Your task to perform on an android device: Open the calendar app, open the side menu, and click the "Day" option Image 0: 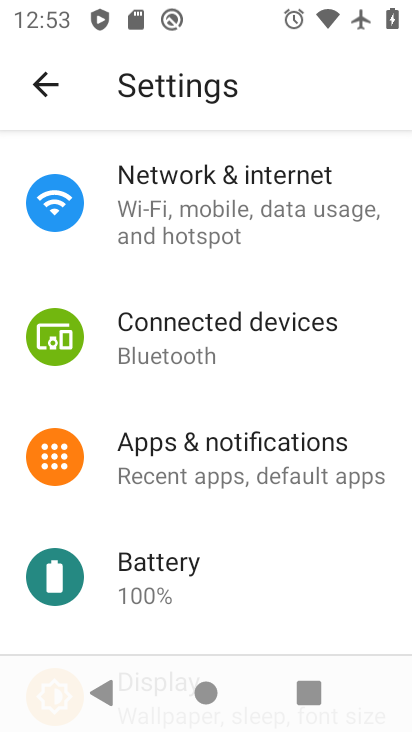
Step 0: press home button
Your task to perform on an android device: Open the calendar app, open the side menu, and click the "Day" option Image 1: 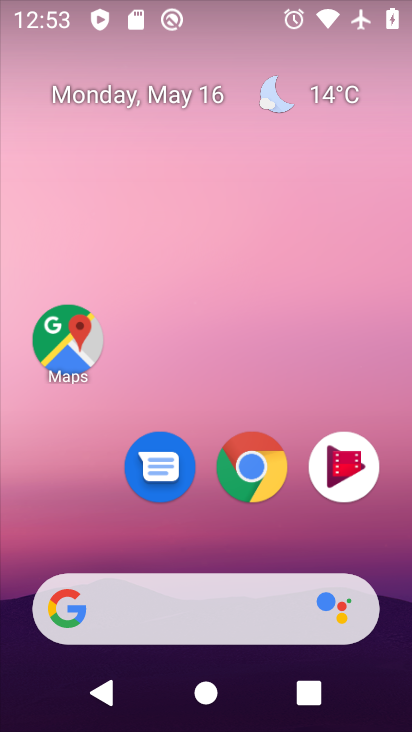
Step 1: drag from (256, 554) to (286, 195)
Your task to perform on an android device: Open the calendar app, open the side menu, and click the "Day" option Image 2: 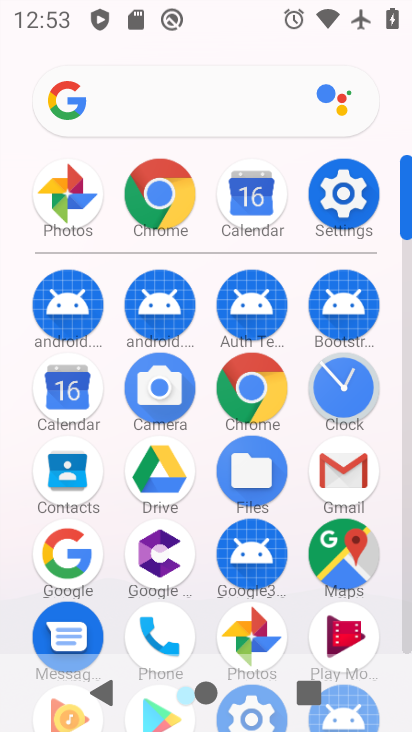
Step 2: click (61, 384)
Your task to perform on an android device: Open the calendar app, open the side menu, and click the "Day" option Image 3: 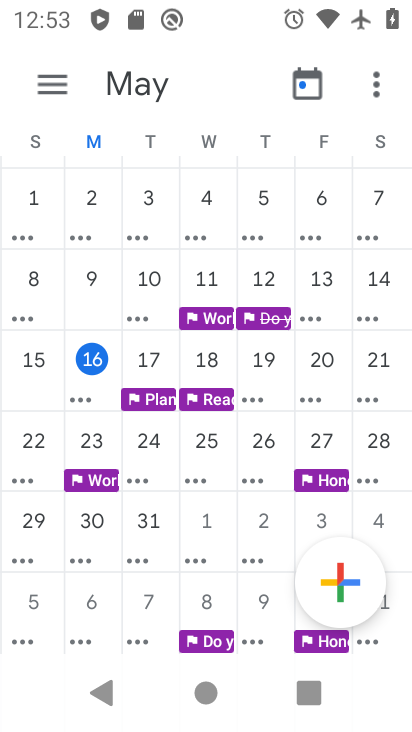
Step 3: click (56, 78)
Your task to perform on an android device: Open the calendar app, open the side menu, and click the "Day" option Image 4: 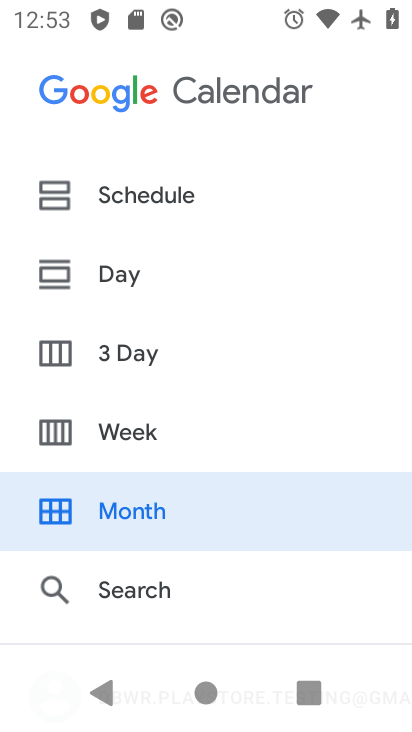
Step 4: click (120, 263)
Your task to perform on an android device: Open the calendar app, open the side menu, and click the "Day" option Image 5: 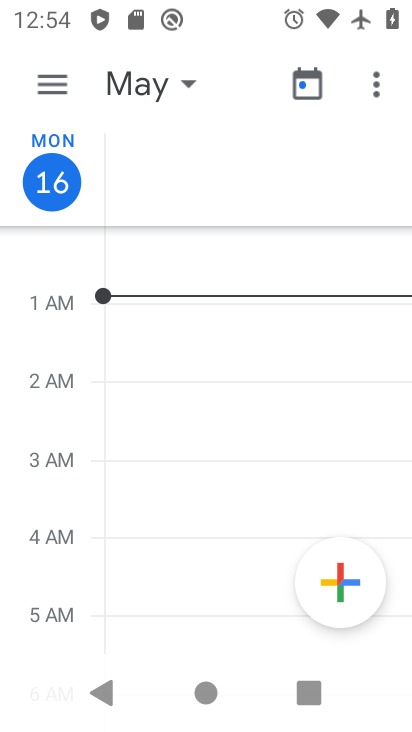
Step 5: click (40, 78)
Your task to perform on an android device: Open the calendar app, open the side menu, and click the "Day" option Image 6: 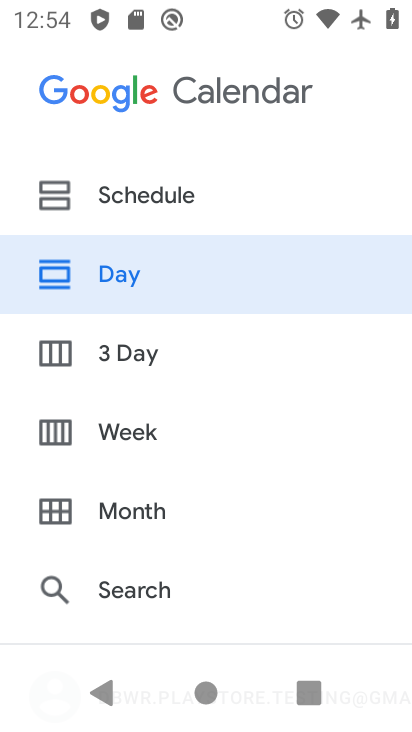
Step 6: click (149, 275)
Your task to perform on an android device: Open the calendar app, open the side menu, and click the "Day" option Image 7: 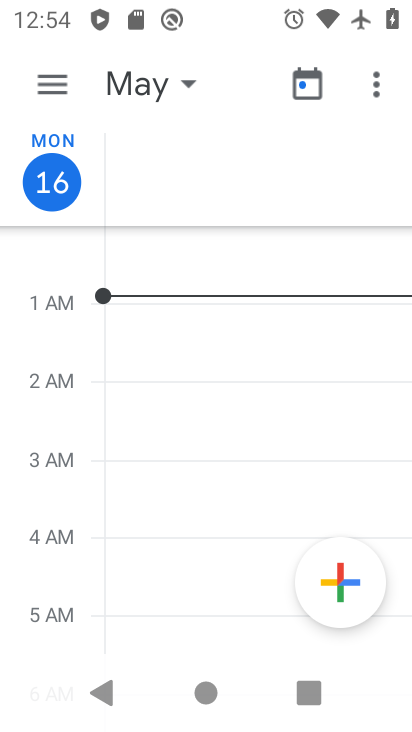
Step 7: task complete